Your task to perform on an android device: Open Chrome and go to settings Image 0: 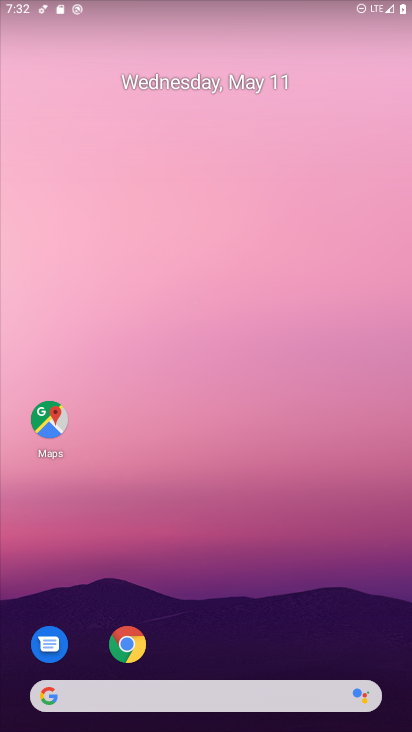
Step 0: click (131, 653)
Your task to perform on an android device: Open Chrome and go to settings Image 1: 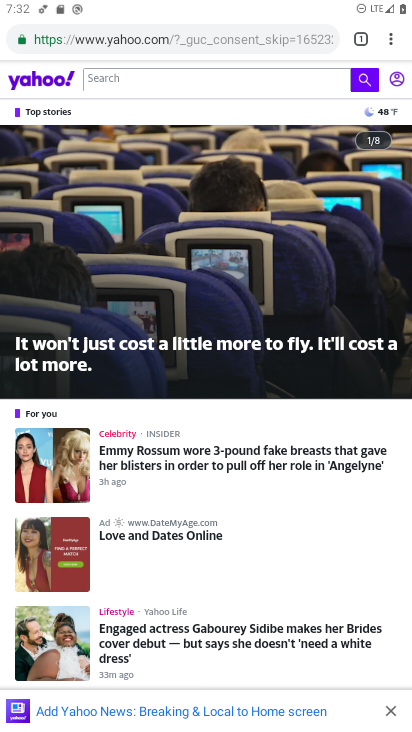
Step 1: click (389, 36)
Your task to perform on an android device: Open Chrome and go to settings Image 2: 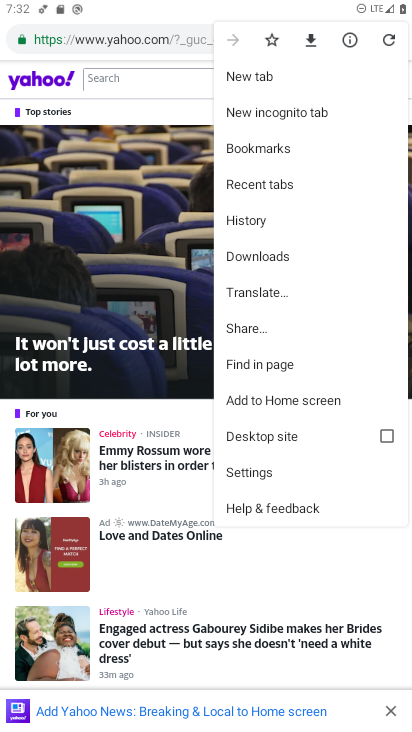
Step 2: click (261, 467)
Your task to perform on an android device: Open Chrome and go to settings Image 3: 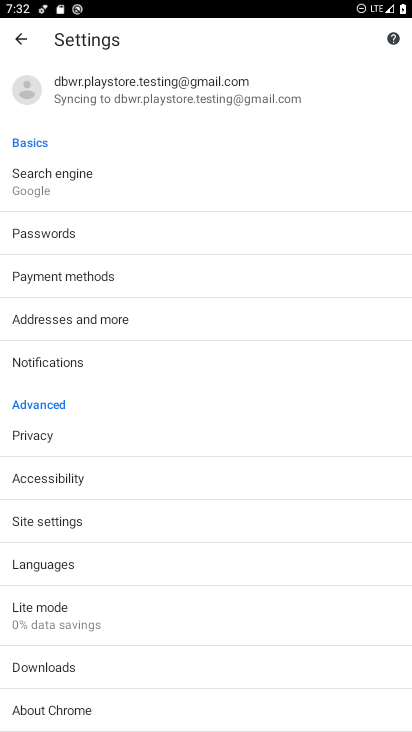
Step 3: task complete